Your task to perform on an android device: turn on the 24-hour format for clock Image 0: 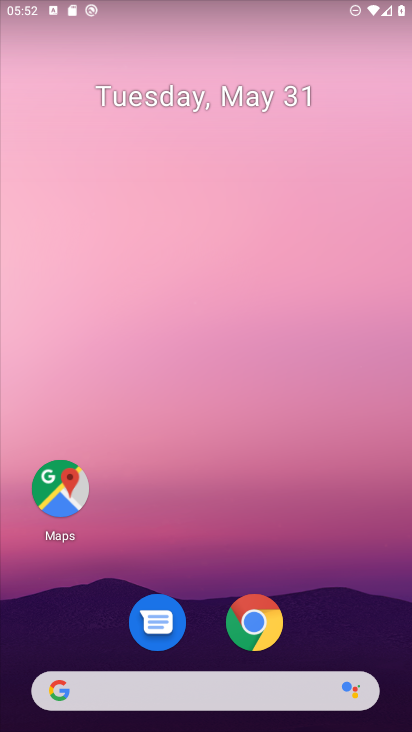
Step 0: drag from (330, 700) to (406, 63)
Your task to perform on an android device: turn on the 24-hour format for clock Image 1: 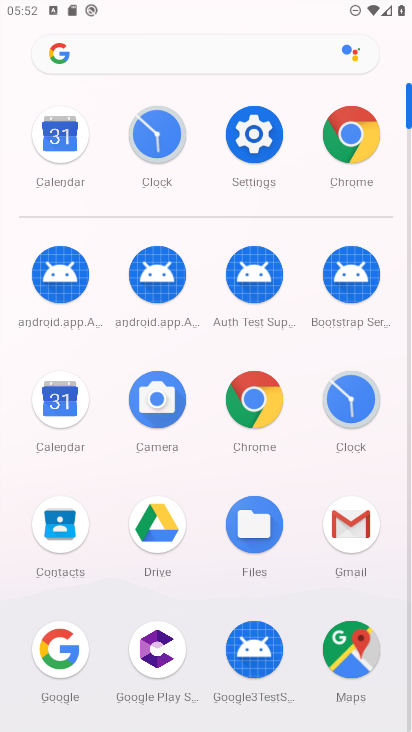
Step 1: click (360, 419)
Your task to perform on an android device: turn on the 24-hour format for clock Image 2: 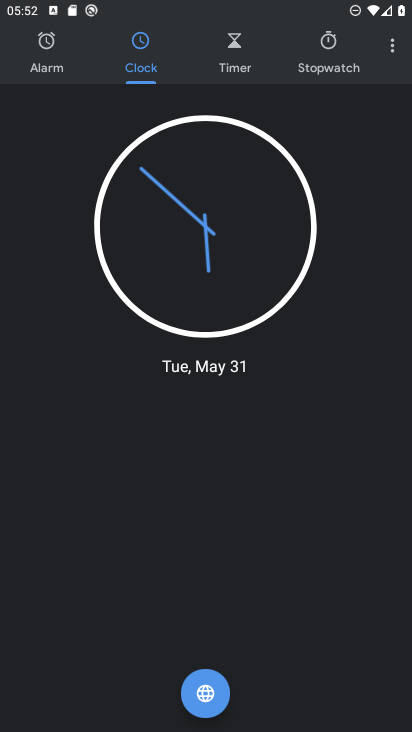
Step 2: drag from (392, 47) to (294, 82)
Your task to perform on an android device: turn on the 24-hour format for clock Image 3: 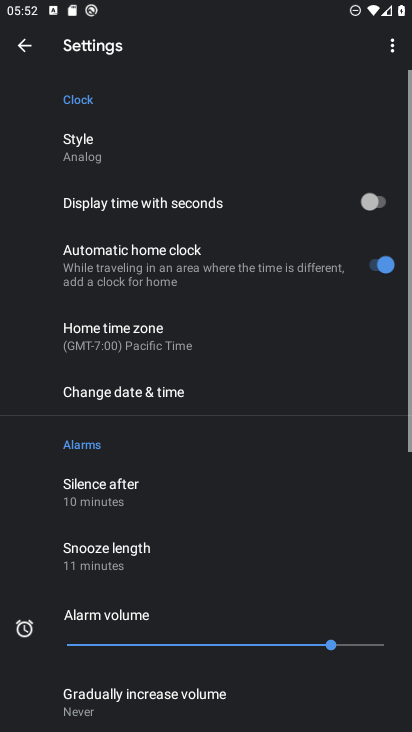
Step 3: drag from (260, 514) to (286, 311)
Your task to perform on an android device: turn on the 24-hour format for clock Image 4: 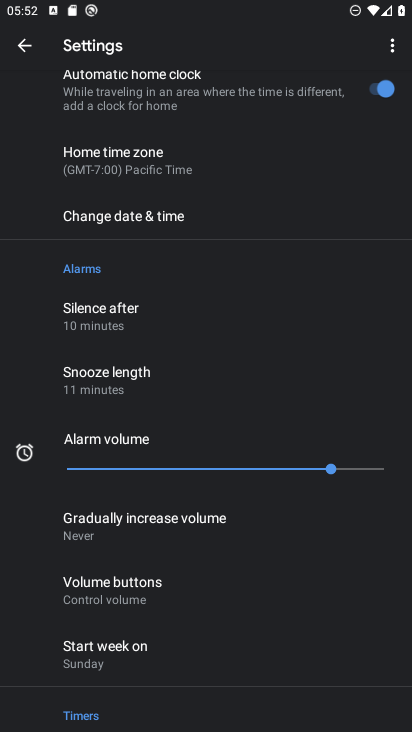
Step 4: click (125, 223)
Your task to perform on an android device: turn on the 24-hour format for clock Image 5: 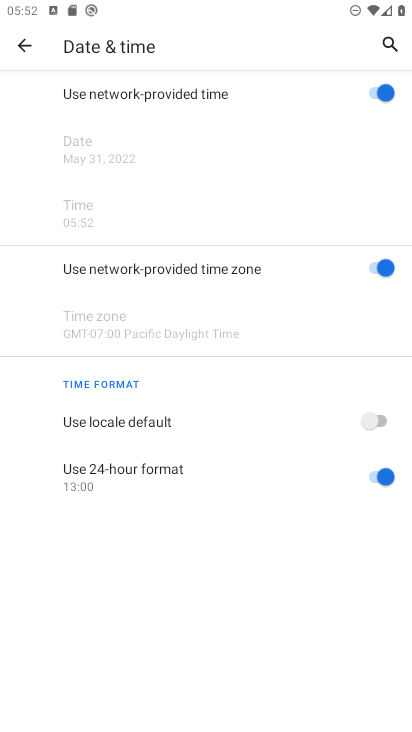
Step 5: task complete